Your task to perform on an android device: What is the news today? Image 0: 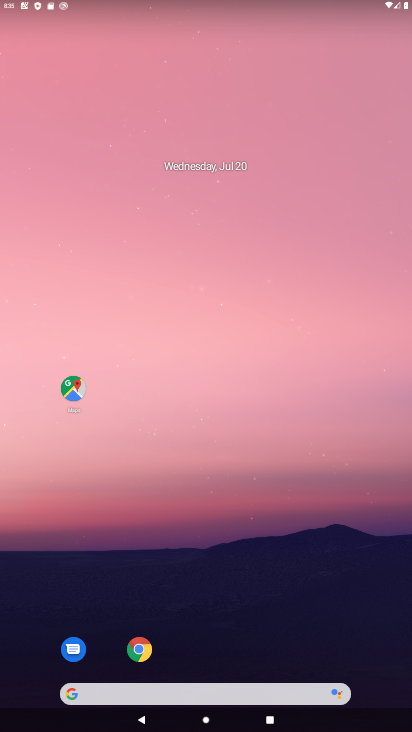
Step 0: drag from (333, 639) to (250, 46)
Your task to perform on an android device: What is the news today? Image 1: 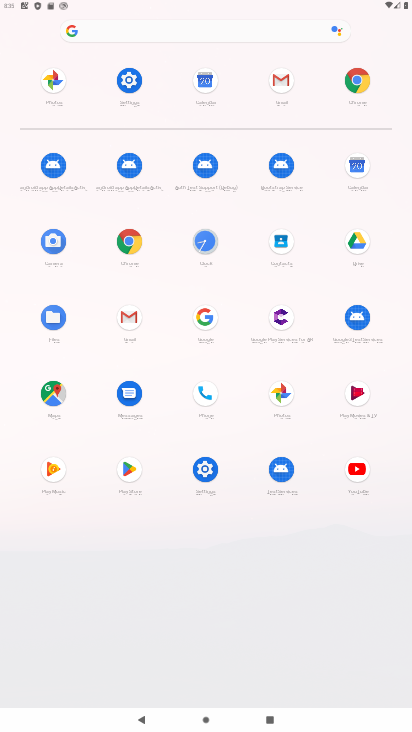
Step 1: click (134, 96)
Your task to perform on an android device: What is the news today? Image 2: 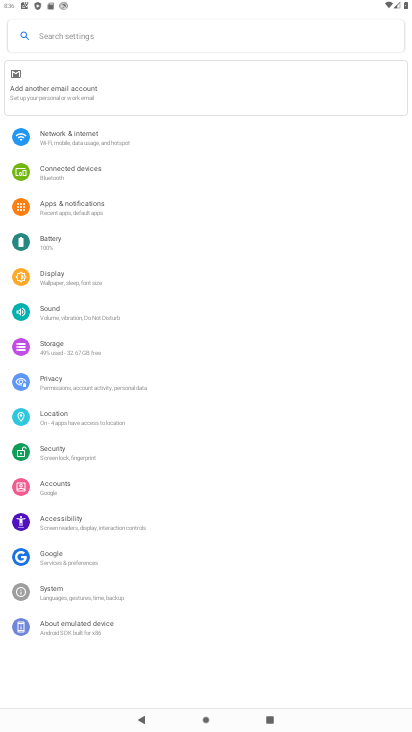
Step 2: press home button
Your task to perform on an android device: What is the news today? Image 3: 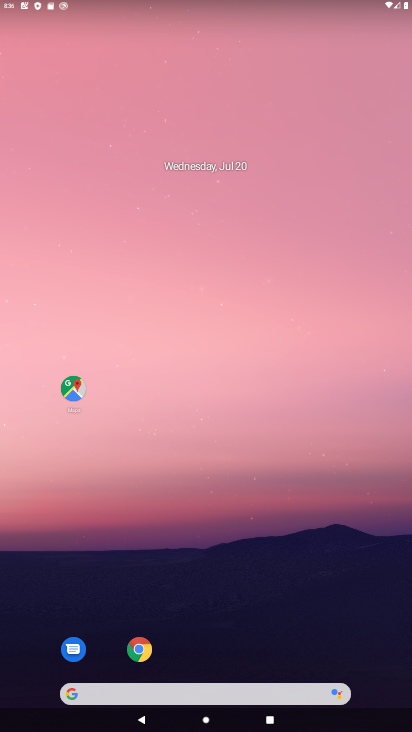
Step 3: click (157, 690)
Your task to perform on an android device: What is the news today? Image 4: 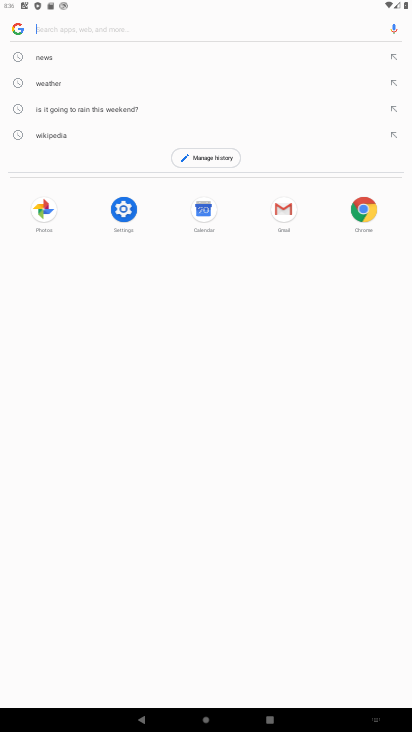
Step 4: click (80, 60)
Your task to perform on an android device: What is the news today? Image 5: 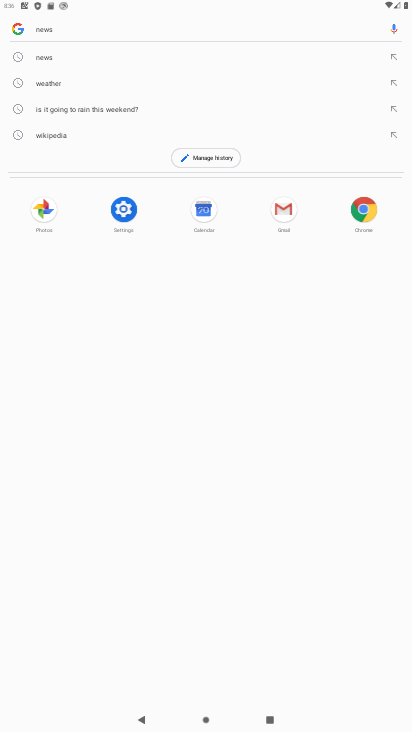
Step 5: task complete